Your task to perform on an android device: Go to accessibility settings Image 0: 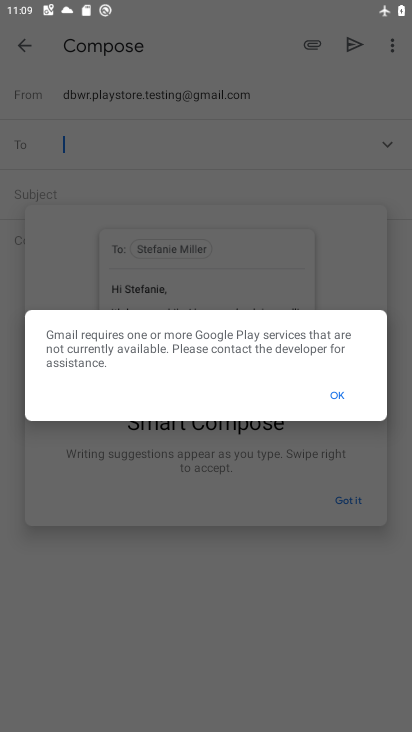
Step 0: press home button
Your task to perform on an android device: Go to accessibility settings Image 1: 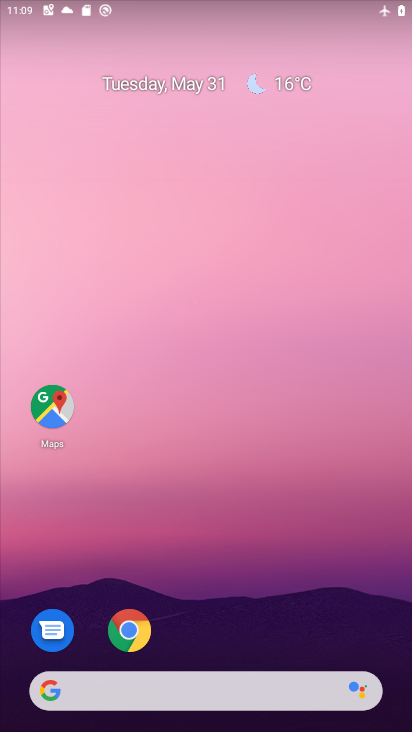
Step 1: drag from (348, 562) to (289, 102)
Your task to perform on an android device: Go to accessibility settings Image 2: 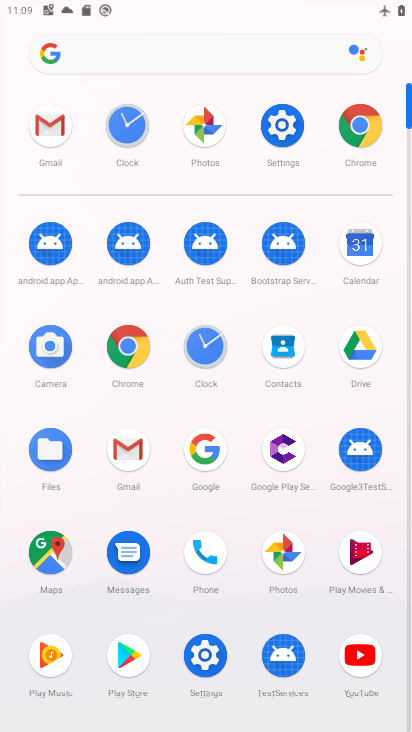
Step 2: click (284, 128)
Your task to perform on an android device: Go to accessibility settings Image 3: 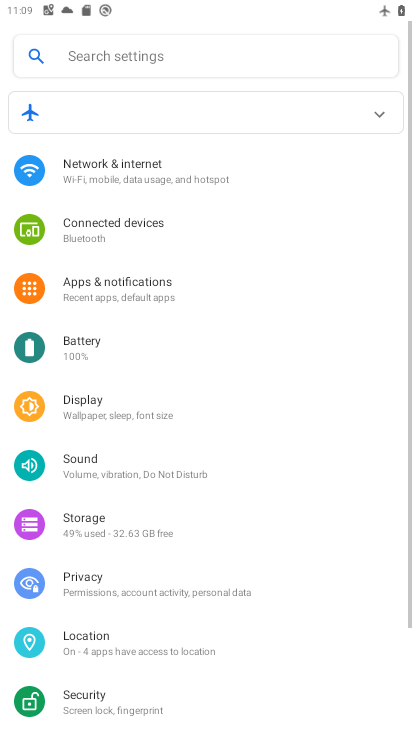
Step 3: drag from (209, 609) to (252, 133)
Your task to perform on an android device: Go to accessibility settings Image 4: 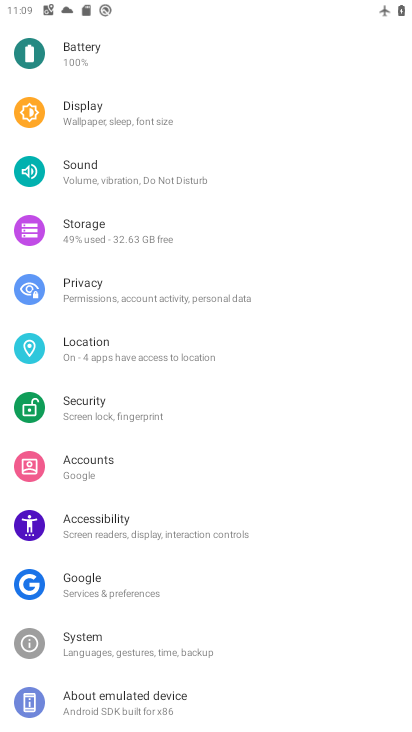
Step 4: click (136, 510)
Your task to perform on an android device: Go to accessibility settings Image 5: 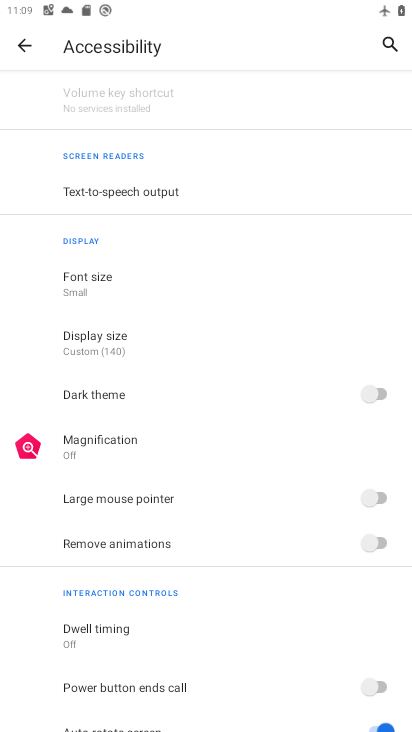
Step 5: task complete